Your task to perform on an android device: Search for the best gaming mouses on Amazon. Image 0: 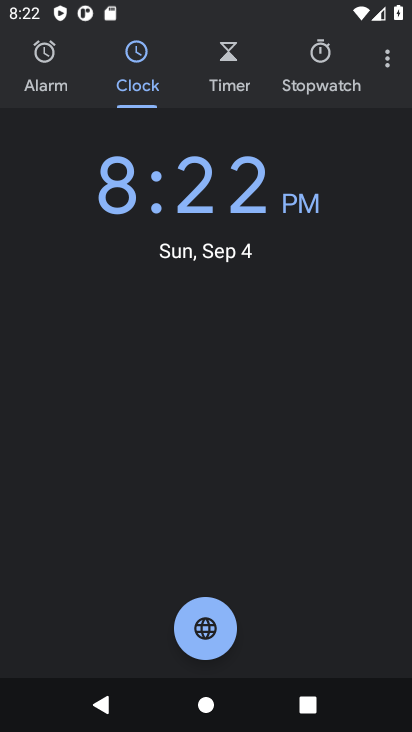
Step 0: press home button
Your task to perform on an android device: Search for the best gaming mouses on Amazon. Image 1: 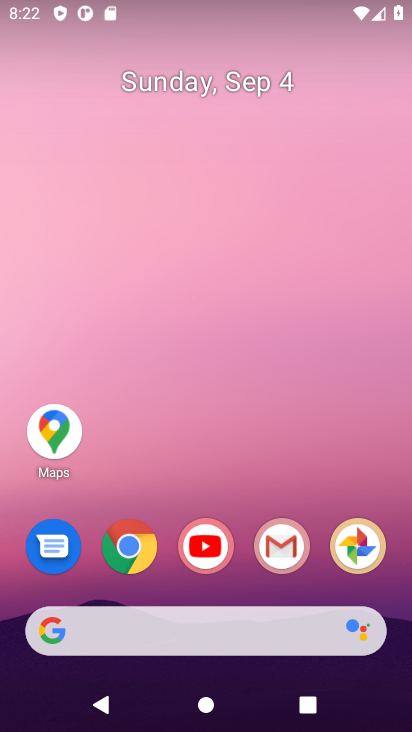
Step 1: click (124, 549)
Your task to perform on an android device: Search for the best gaming mouses on Amazon. Image 2: 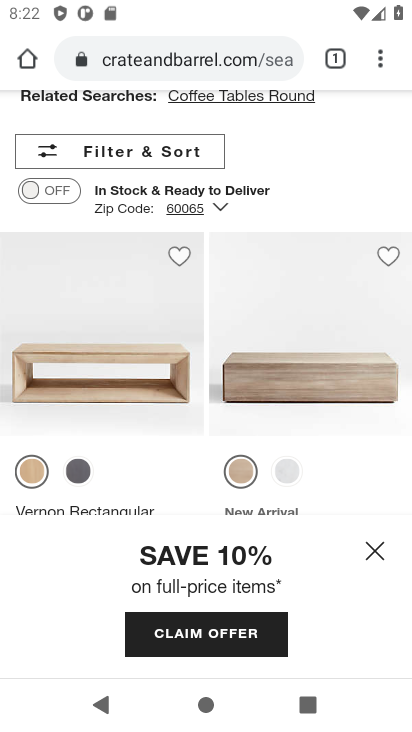
Step 2: click (189, 60)
Your task to perform on an android device: Search for the best gaming mouses on Amazon. Image 3: 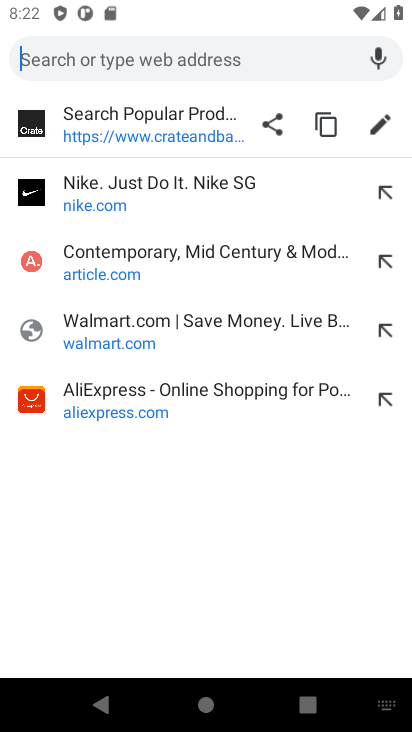
Step 3: type "amazon"
Your task to perform on an android device: Search for the best gaming mouses on Amazon. Image 4: 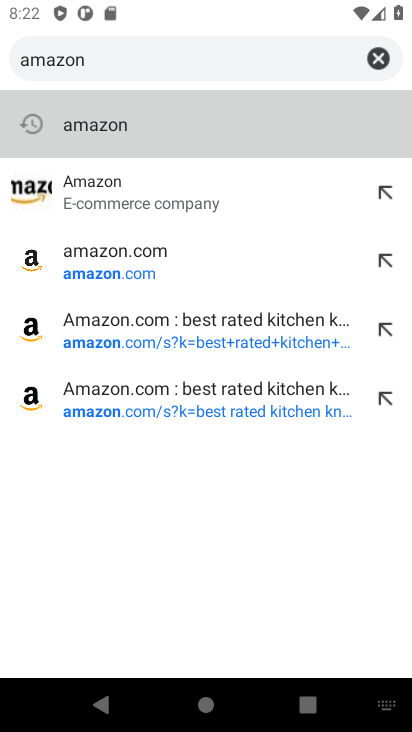
Step 4: click (101, 247)
Your task to perform on an android device: Search for the best gaming mouses on Amazon. Image 5: 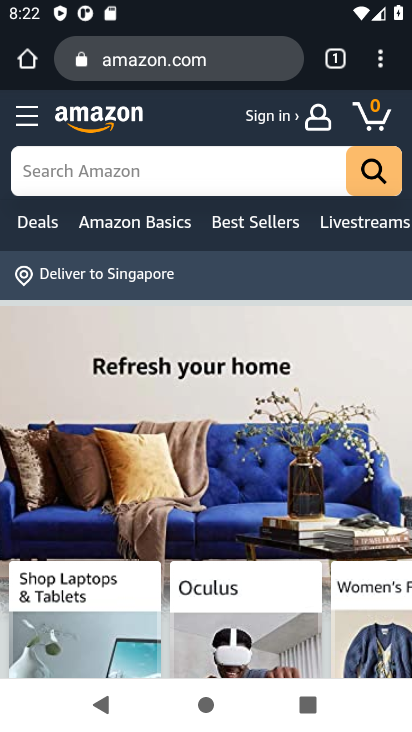
Step 5: click (130, 170)
Your task to perform on an android device: Search for the best gaming mouses on Amazon. Image 6: 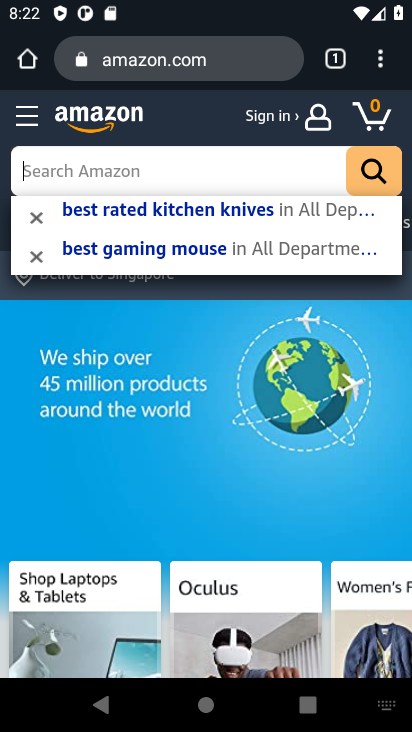
Step 6: type "best gaming mouses"
Your task to perform on an android device: Search for the best gaming mouses on Amazon. Image 7: 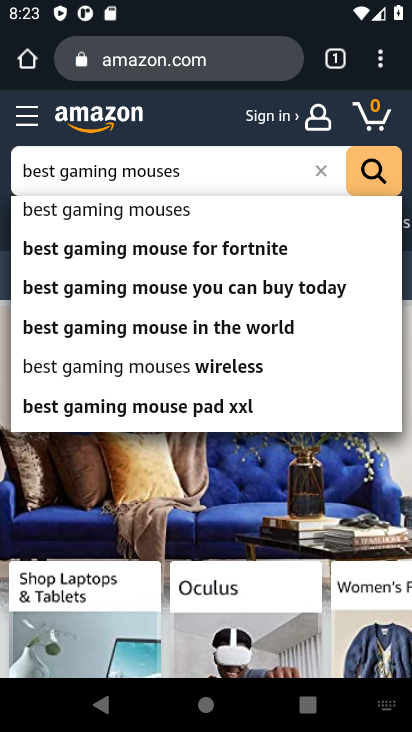
Step 7: click (141, 216)
Your task to perform on an android device: Search for the best gaming mouses on Amazon. Image 8: 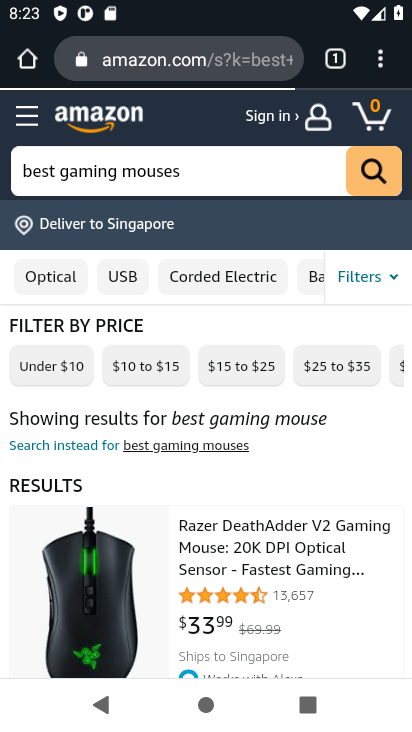
Step 8: task complete